Your task to perform on an android device: turn off sleep mode Image 0: 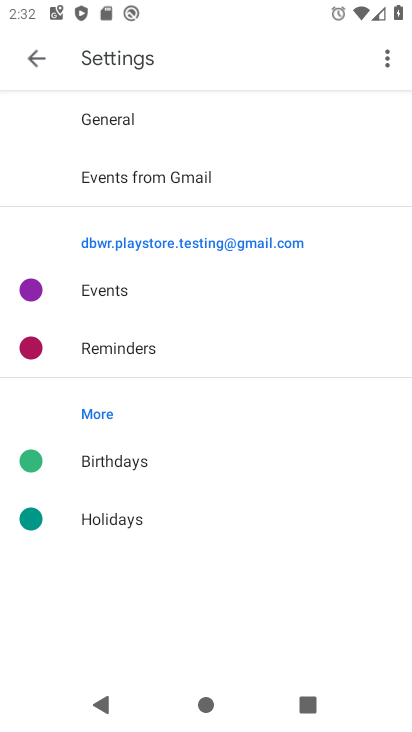
Step 0: press home button
Your task to perform on an android device: turn off sleep mode Image 1: 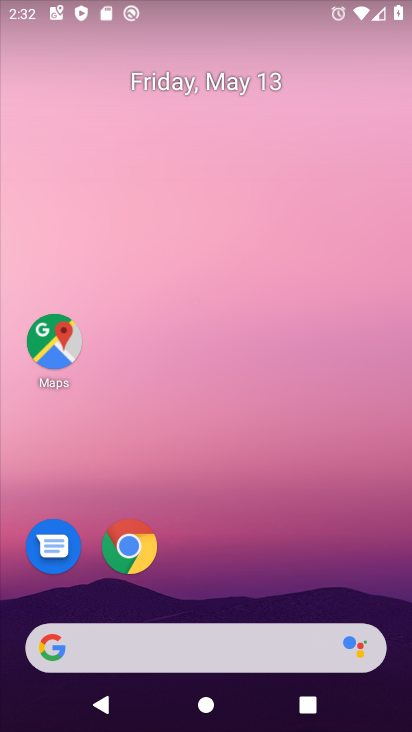
Step 1: drag from (296, 546) to (282, 34)
Your task to perform on an android device: turn off sleep mode Image 2: 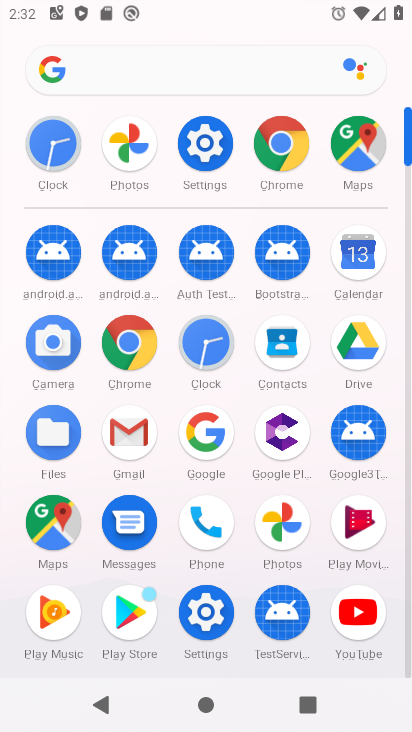
Step 2: click (220, 143)
Your task to perform on an android device: turn off sleep mode Image 3: 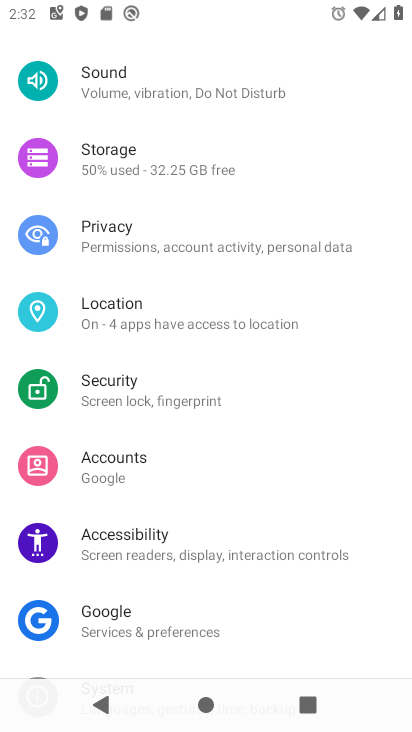
Step 3: drag from (184, 216) to (223, 552)
Your task to perform on an android device: turn off sleep mode Image 4: 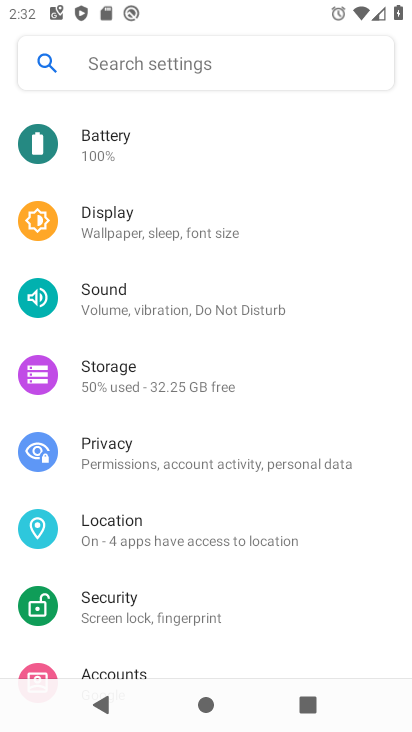
Step 4: click (171, 225)
Your task to perform on an android device: turn off sleep mode Image 5: 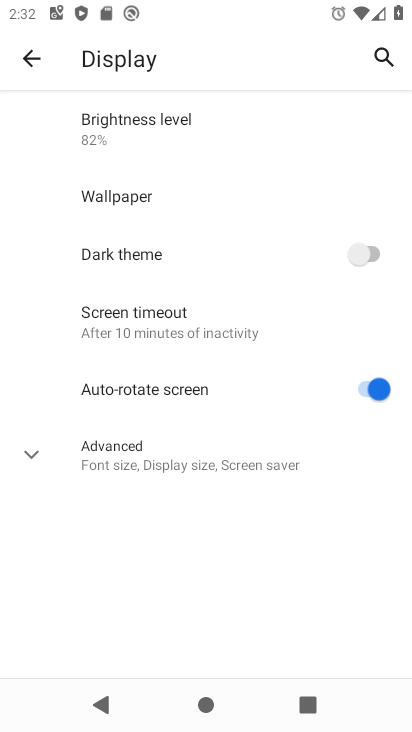
Step 5: click (147, 312)
Your task to perform on an android device: turn off sleep mode Image 6: 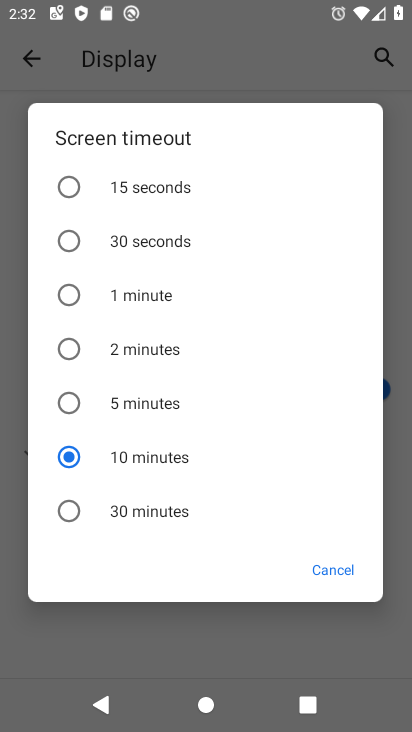
Step 6: task complete